Your task to perform on an android device: change the clock display to digital Image 0: 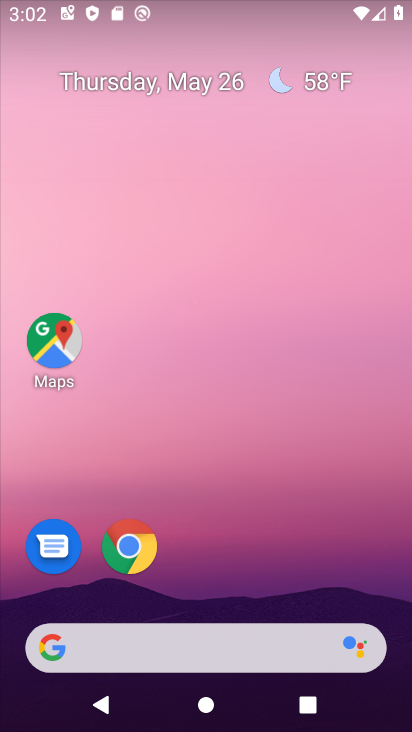
Step 0: press back button
Your task to perform on an android device: change the clock display to digital Image 1: 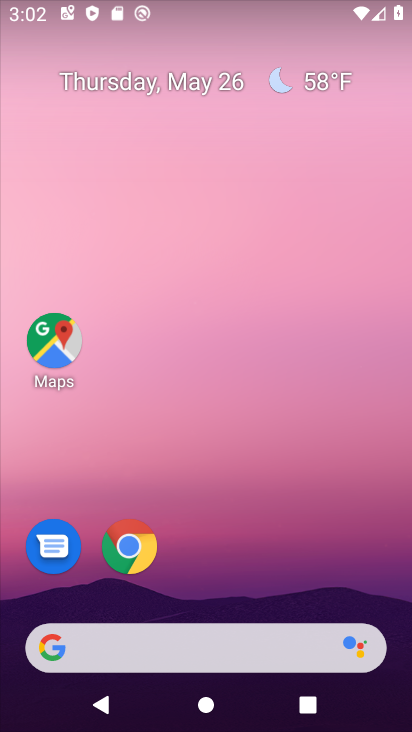
Step 1: drag from (228, 604) to (234, 87)
Your task to perform on an android device: change the clock display to digital Image 2: 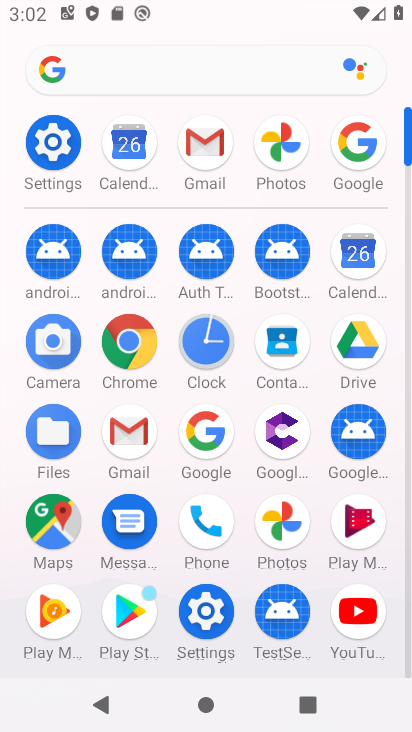
Step 2: click (210, 334)
Your task to perform on an android device: change the clock display to digital Image 3: 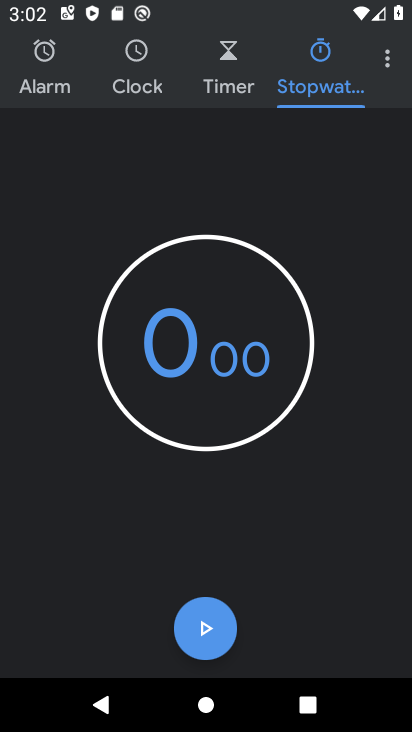
Step 3: click (385, 53)
Your task to perform on an android device: change the clock display to digital Image 4: 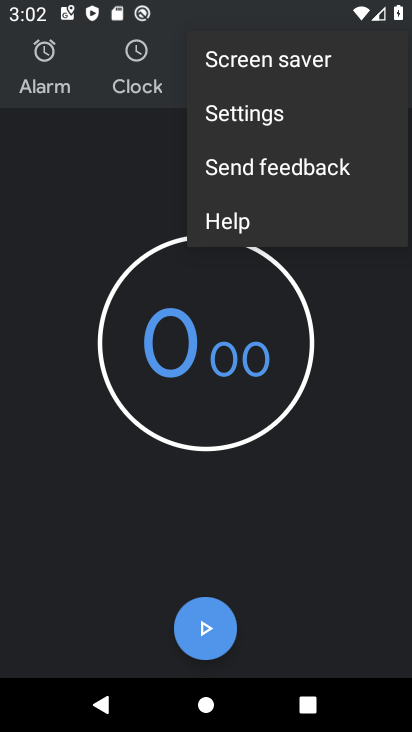
Step 4: click (247, 107)
Your task to perform on an android device: change the clock display to digital Image 5: 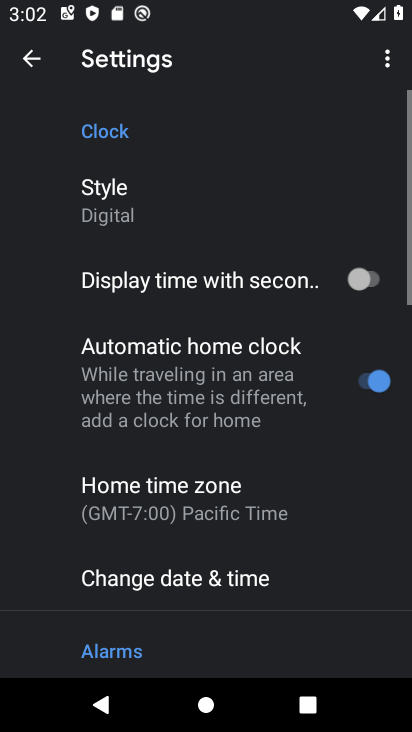
Step 5: click (172, 211)
Your task to perform on an android device: change the clock display to digital Image 6: 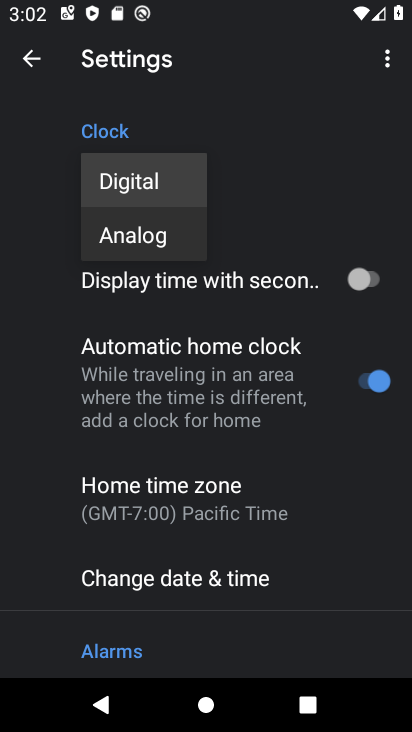
Step 6: click (162, 181)
Your task to perform on an android device: change the clock display to digital Image 7: 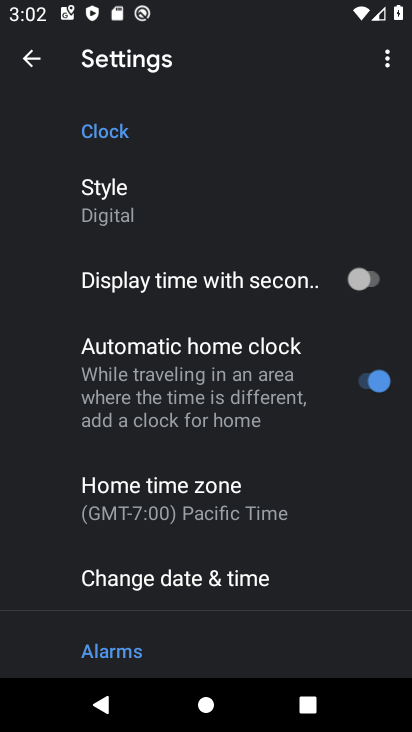
Step 7: task complete